Your task to perform on an android device: toggle data saver in the chrome app Image 0: 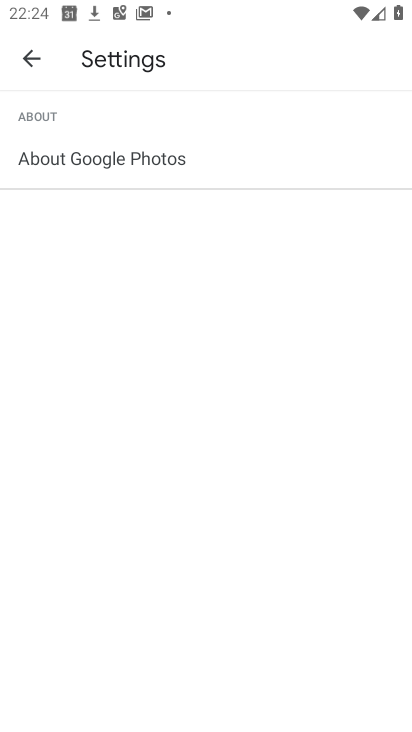
Step 0: press home button
Your task to perform on an android device: toggle data saver in the chrome app Image 1: 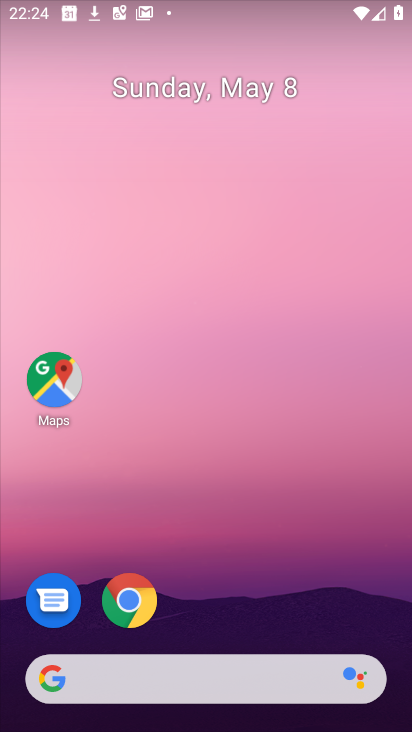
Step 1: drag from (264, 717) to (146, 316)
Your task to perform on an android device: toggle data saver in the chrome app Image 2: 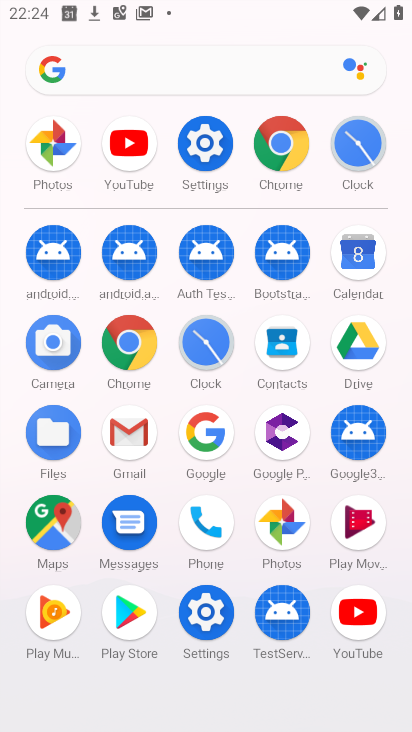
Step 2: click (250, 155)
Your task to perform on an android device: toggle data saver in the chrome app Image 3: 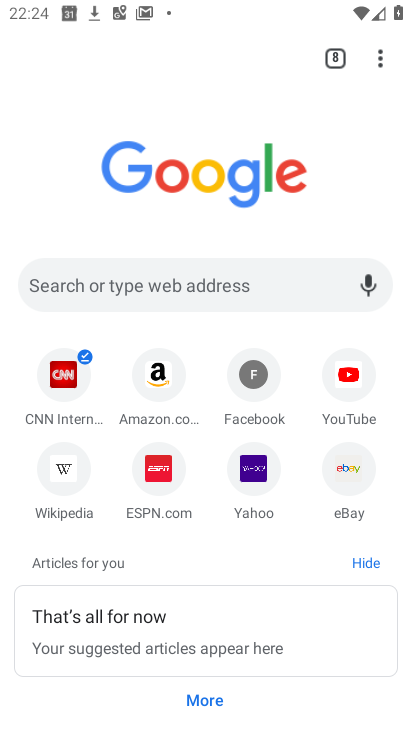
Step 3: click (373, 70)
Your task to perform on an android device: toggle data saver in the chrome app Image 4: 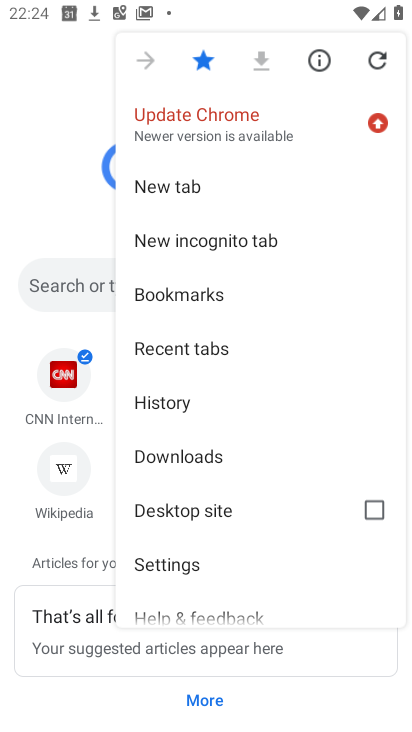
Step 4: click (171, 570)
Your task to perform on an android device: toggle data saver in the chrome app Image 5: 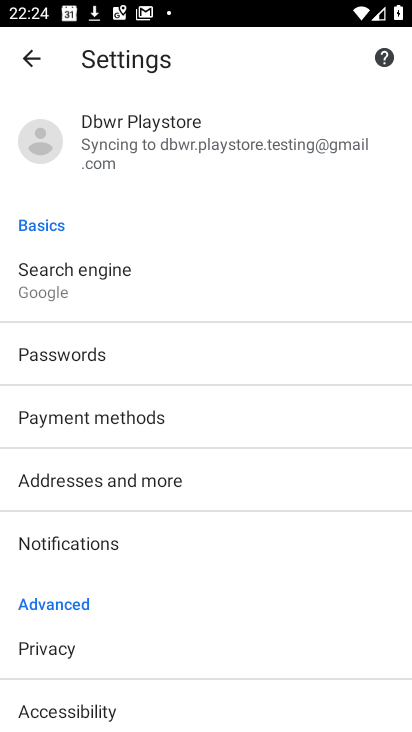
Step 5: drag from (108, 628) to (47, 468)
Your task to perform on an android device: toggle data saver in the chrome app Image 6: 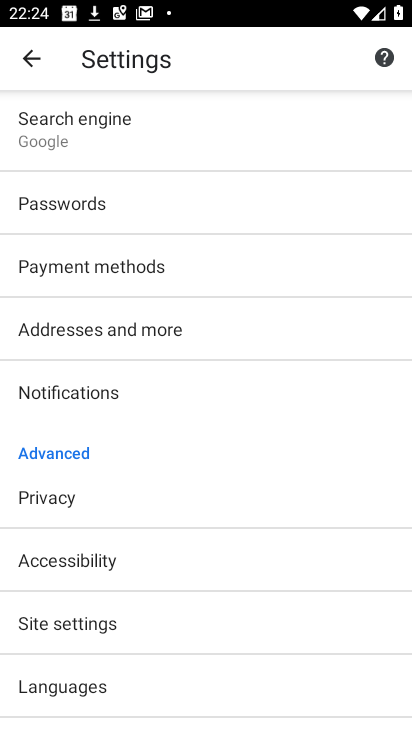
Step 6: drag from (103, 651) to (96, 590)
Your task to perform on an android device: toggle data saver in the chrome app Image 7: 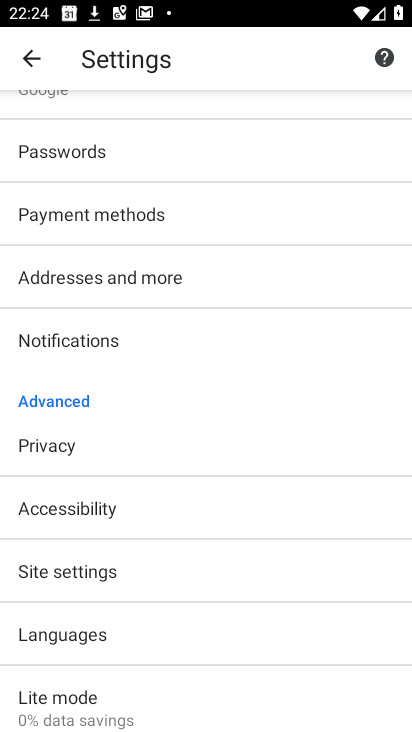
Step 7: click (101, 692)
Your task to perform on an android device: toggle data saver in the chrome app Image 8: 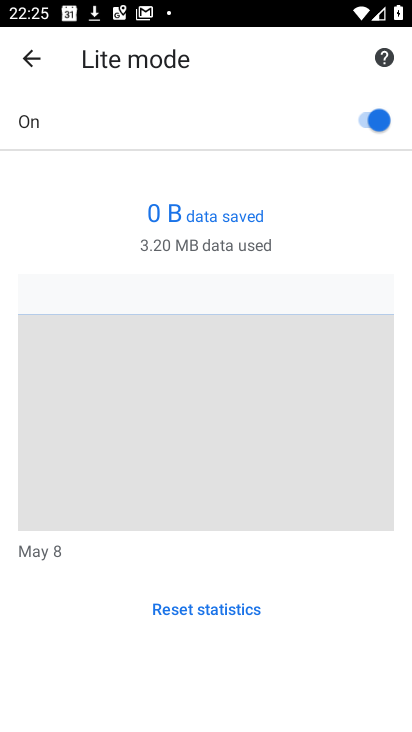
Step 8: click (20, 56)
Your task to perform on an android device: toggle data saver in the chrome app Image 9: 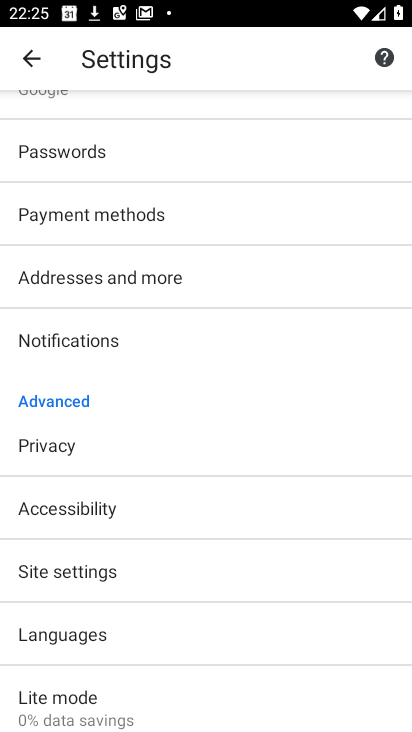
Step 9: click (95, 685)
Your task to perform on an android device: toggle data saver in the chrome app Image 10: 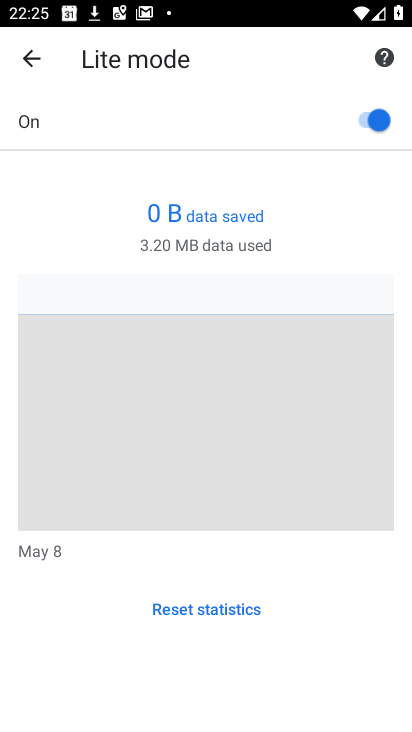
Step 10: task complete